Your task to perform on an android device: Go to CNN.com Image 0: 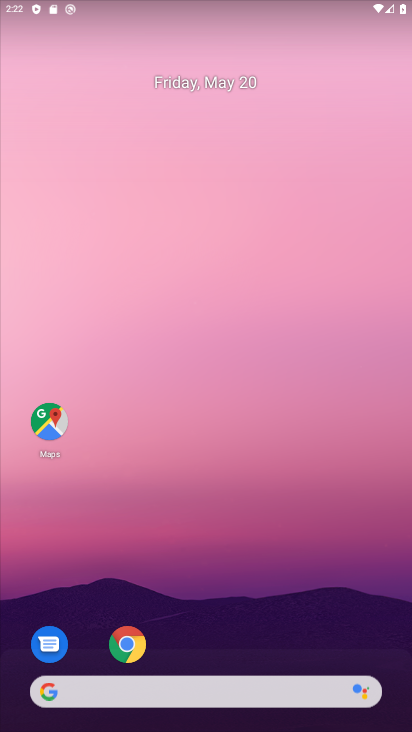
Step 0: drag from (235, 640) to (215, 146)
Your task to perform on an android device: Go to CNN.com Image 1: 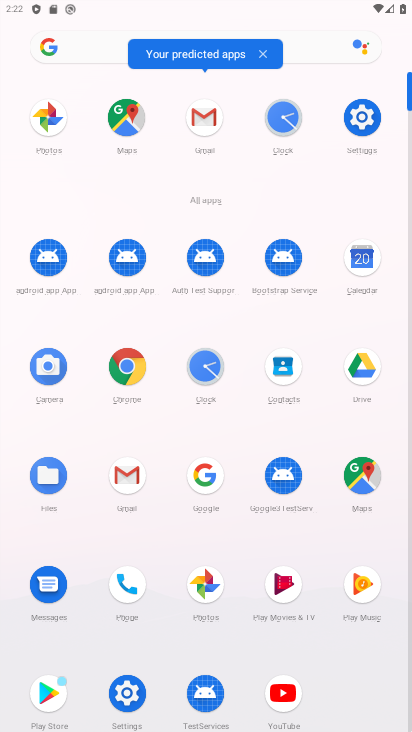
Step 1: click (209, 483)
Your task to perform on an android device: Go to CNN.com Image 2: 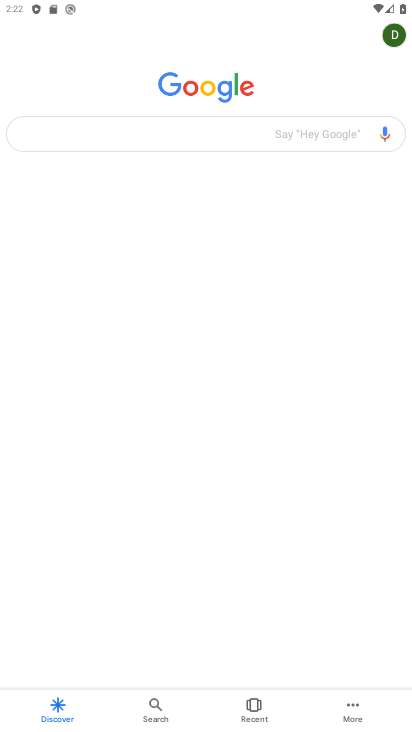
Step 2: click (218, 132)
Your task to perform on an android device: Go to CNN.com Image 3: 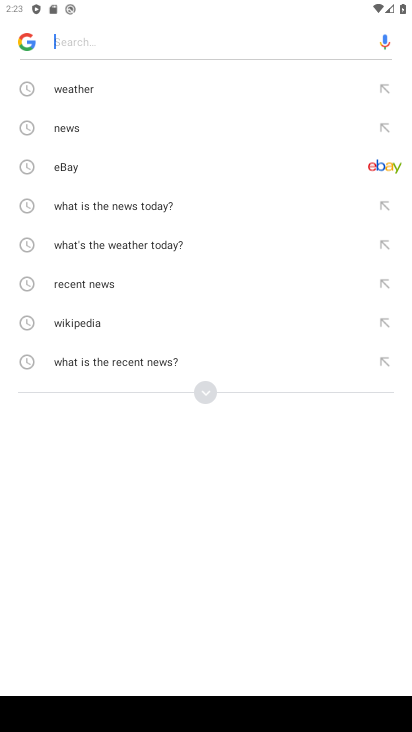
Step 3: type "CNN.com"
Your task to perform on an android device: Go to CNN.com Image 4: 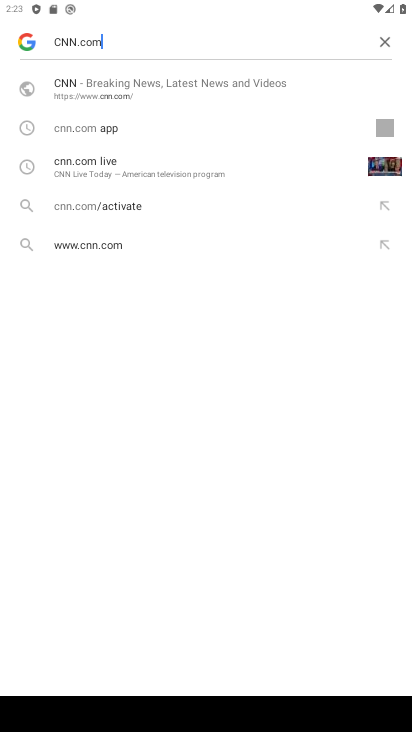
Step 4: click (116, 108)
Your task to perform on an android device: Go to CNN.com Image 5: 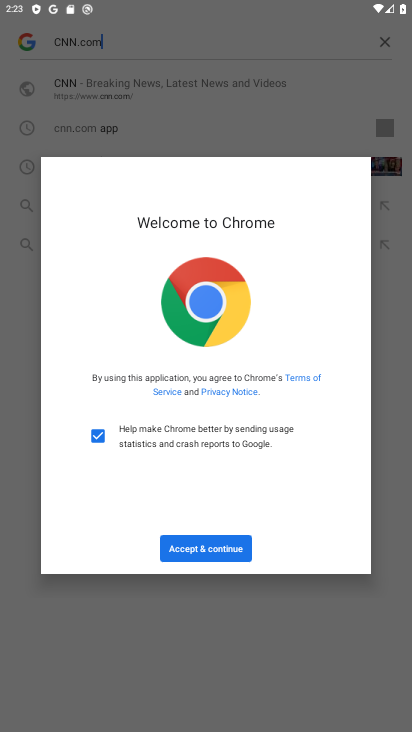
Step 5: click (225, 555)
Your task to perform on an android device: Go to CNN.com Image 6: 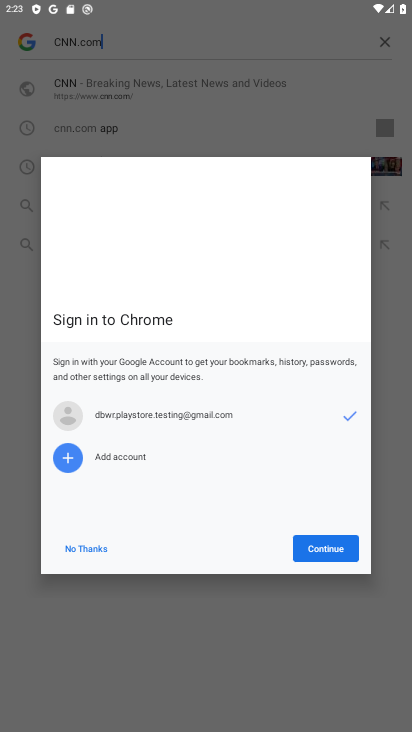
Step 6: click (333, 553)
Your task to perform on an android device: Go to CNN.com Image 7: 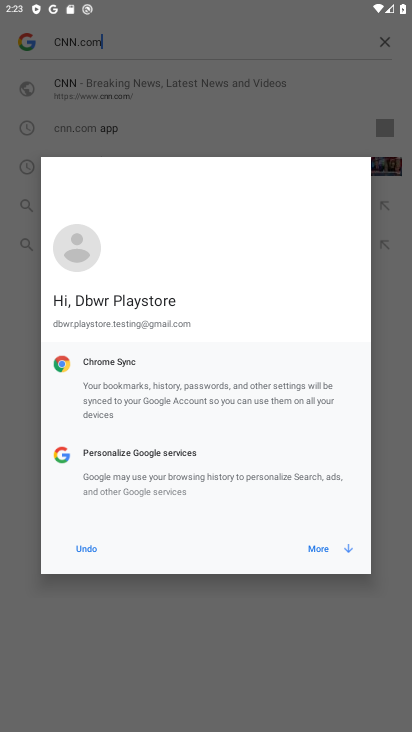
Step 7: click (332, 554)
Your task to perform on an android device: Go to CNN.com Image 8: 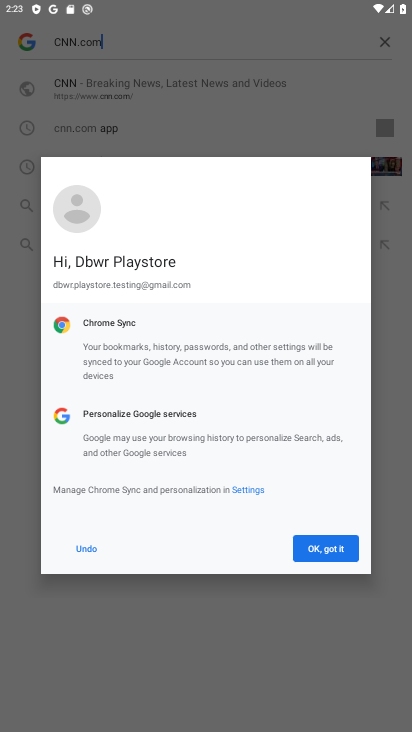
Step 8: click (310, 557)
Your task to perform on an android device: Go to CNN.com Image 9: 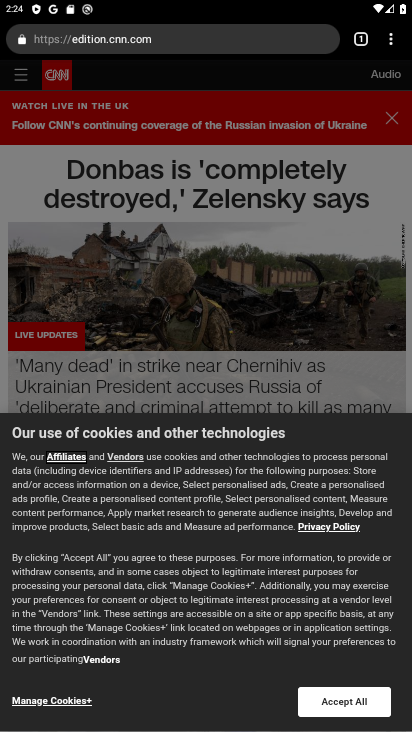
Step 9: task complete